Your task to perform on an android device: empty trash in the gmail app Image 0: 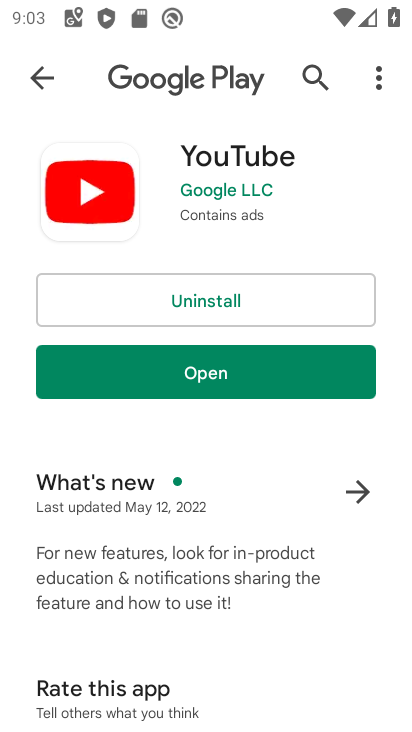
Step 0: press home button
Your task to perform on an android device: empty trash in the gmail app Image 1: 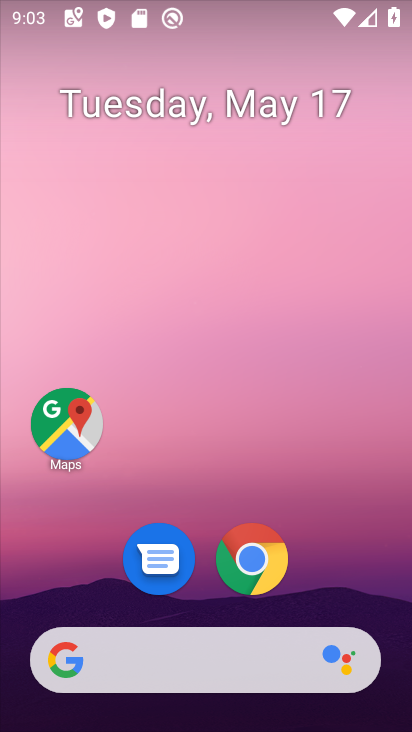
Step 1: drag from (184, 457) to (132, 27)
Your task to perform on an android device: empty trash in the gmail app Image 2: 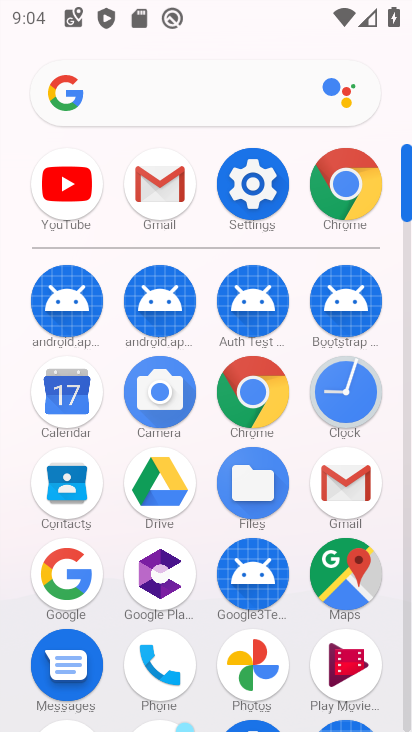
Step 2: click (159, 190)
Your task to perform on an android device: empty trash in the gmail app Image 3: 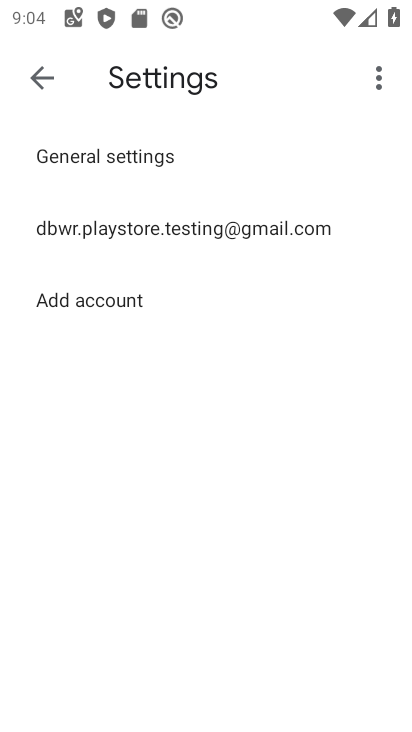
Step 3: click (187, 234)
Your task to perform on an android device: empty trash in the gmail app Image 4: 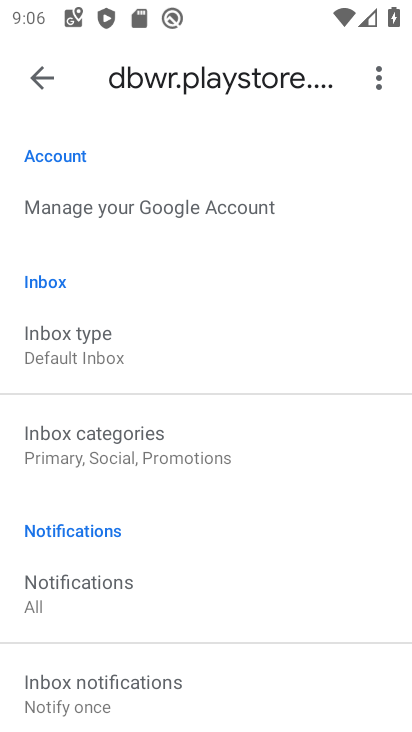
Step 4: press home button
Your task to perform on an android device: empty trash in the gmail app Image 5: 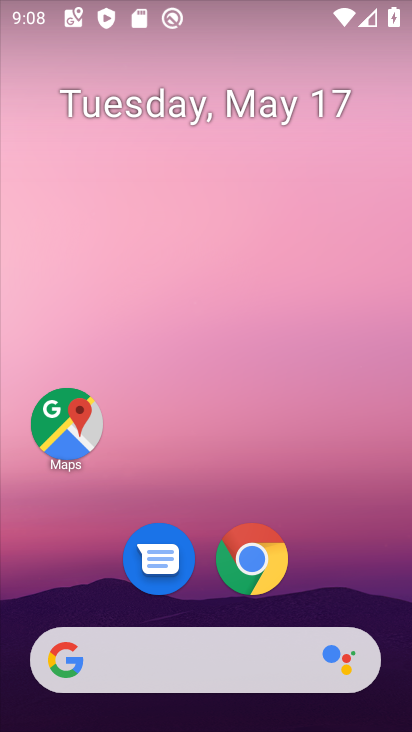
Step 5: drag from (251, 724) to (245, 52)
Your task to perform on an android device: empty trash in the gmail app Image 6: 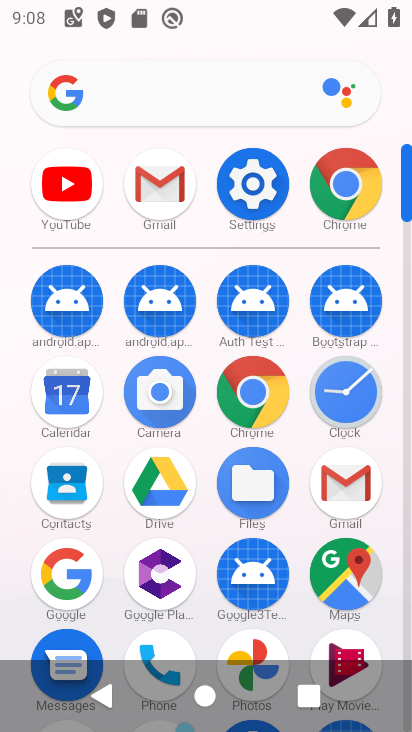
Step 6: click (174, 207)
Your task to perform on an android device: empty trash in the gmail app Image 7: 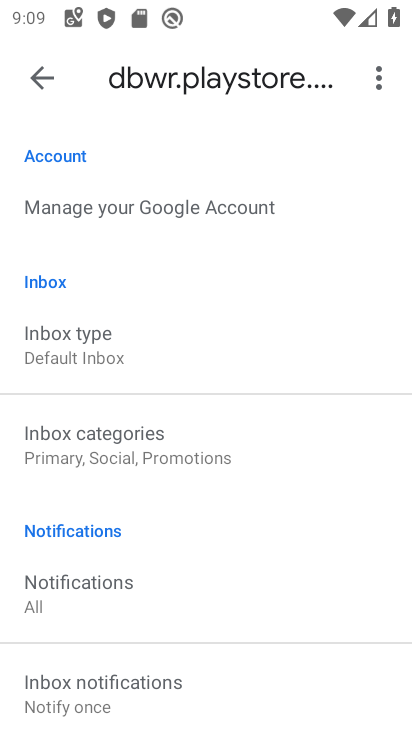
Step 7: click (35, 77)
Your task to perform on an android device: empty trash in the gmail app Image 8: 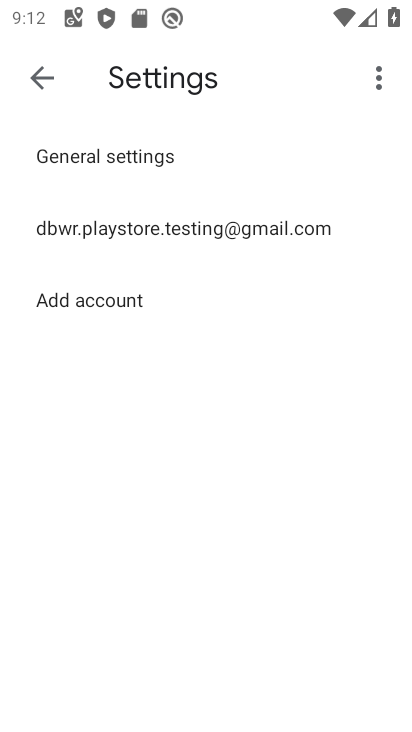
Step 8: click (33, 85)
Your task to perform on an android device: empty trash in the gmail app Image 9: 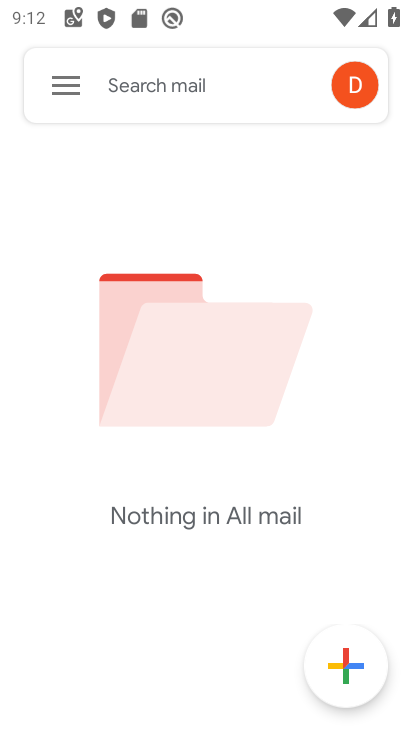
Step 9: click (70, 76)
Your task to perform on an android device: empty trash in the gmail app Image 10: 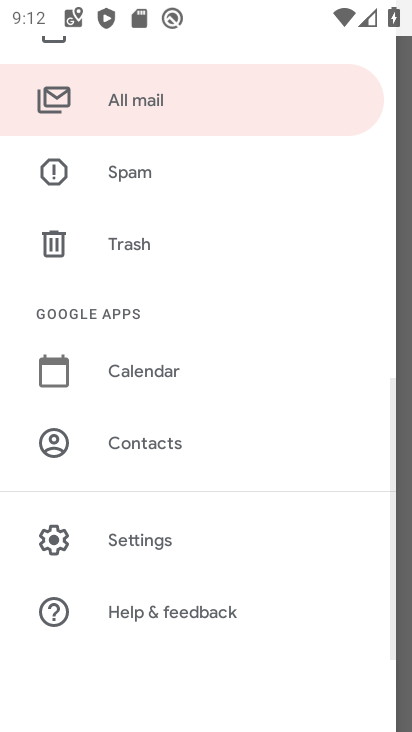
Step 10: click (171, 236)
Your task to perform on an android device: empty trash in the gmail app Image 11: 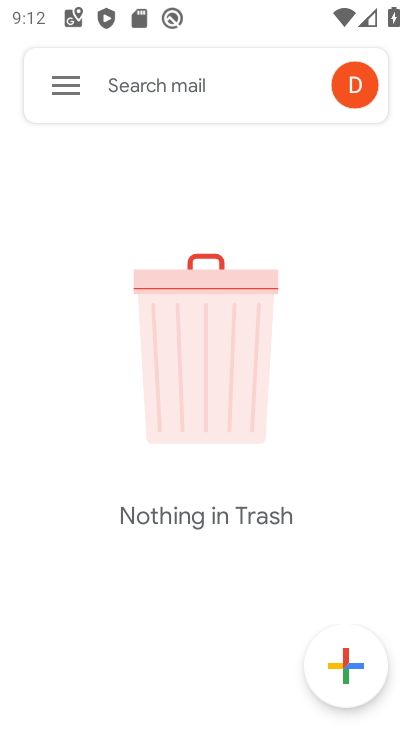
Step 11: task complete